Your task to perform on an android device: find photos in the google photos app Image 0: 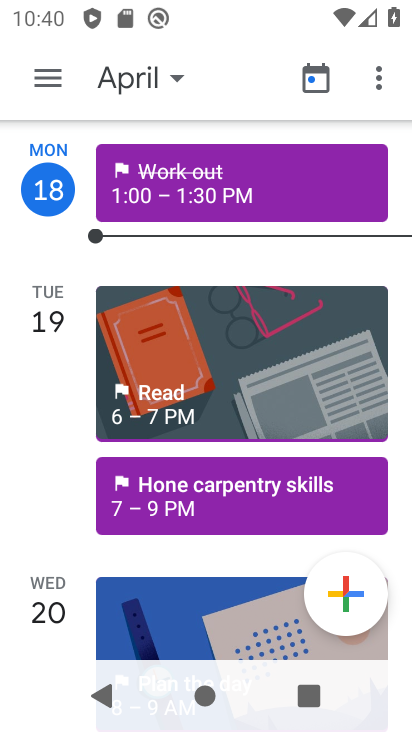
Step 0: press home button
Your task to perform on an android device: find photos in the google photos app Image 1: 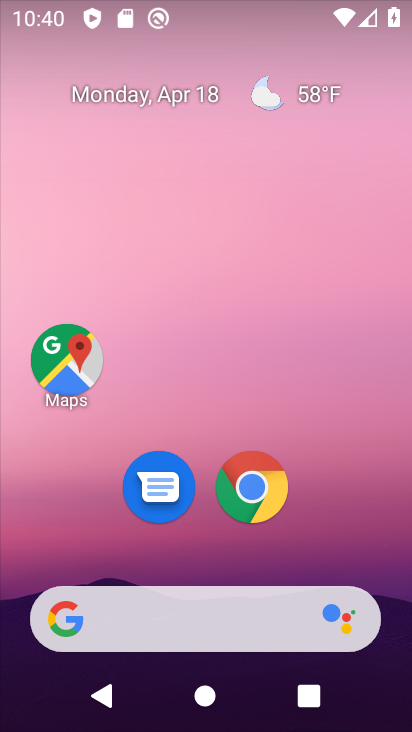
Step 1: drag from (344, 491) to (309, 119)
Your task to perform on an android device: find photos in the google photos app Image 2: 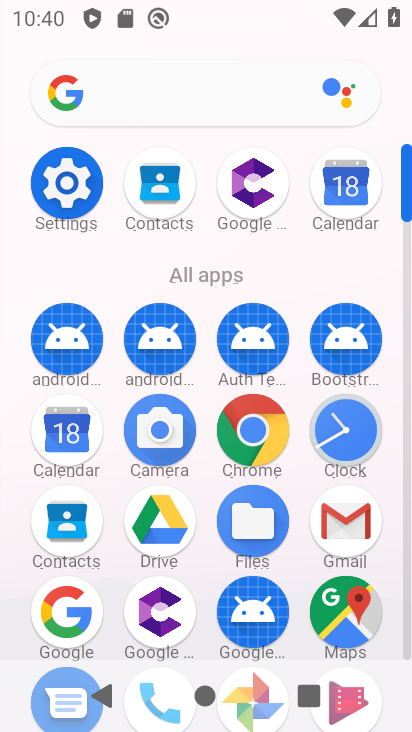
Step 2: drag from (224, 277) to (211, 169)
Your task to perform on an android device: find photos in the google photos app Image 3: 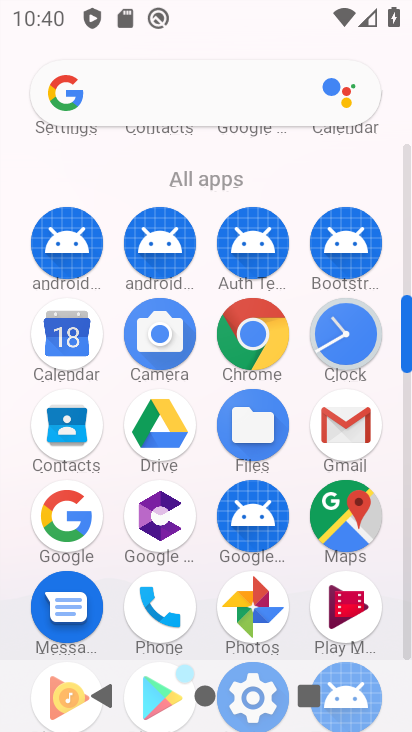
Step 3: click (241, 598)
Your task to perform on an android device: find photos in the google photos app Image 4: 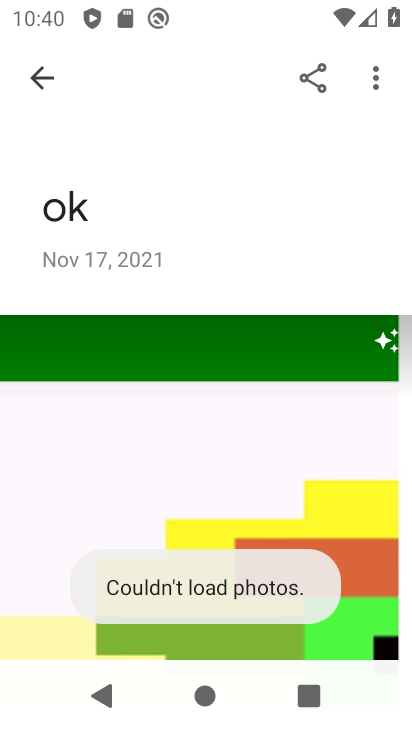
Step 4: click (53, 81)
Your task to perform on an android device: find photos in the google photos app Image 5: 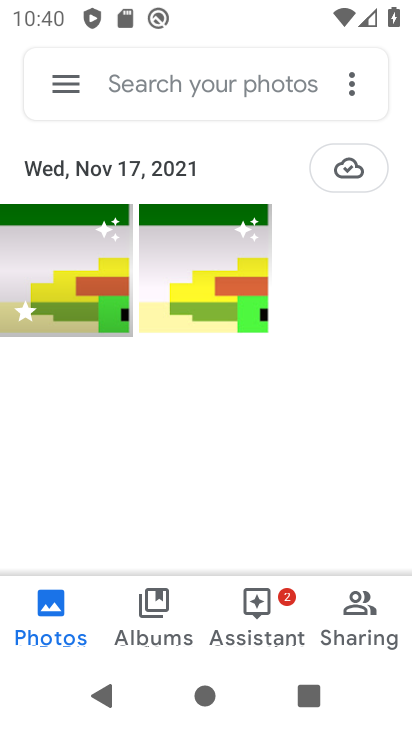
Step 5: task complete